Your task to perform on an android device: Go to sound settings Image 0: 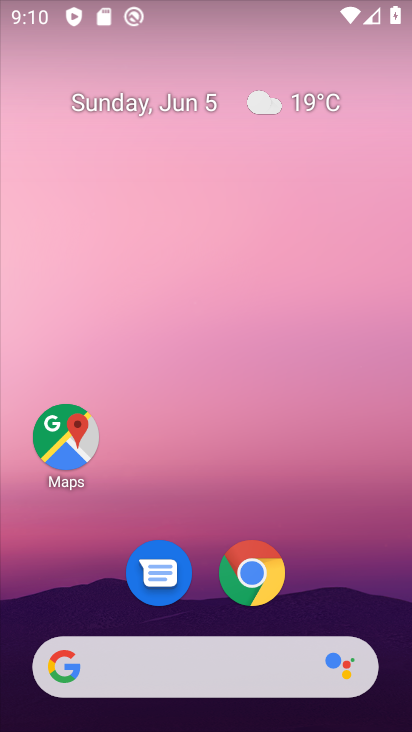
Step 0: drag from (223, 726) to (225, 115)
Your task to perform on an android device: Go to sound settings Image 1: 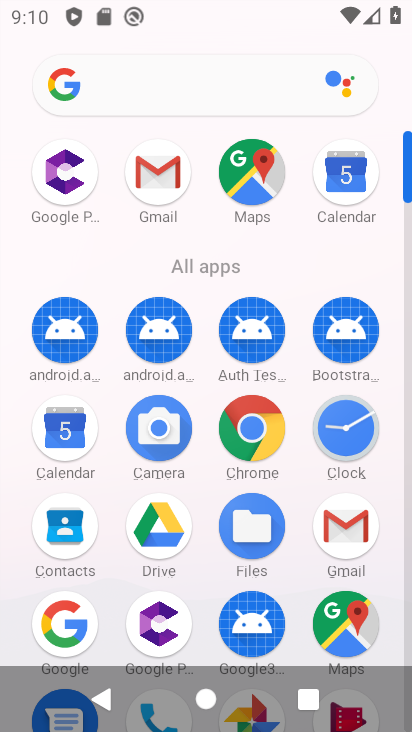
Step 1: drag from (199, 604) to (204, 204)
Your task to perform on an android device: Go to sound settings Image 2: 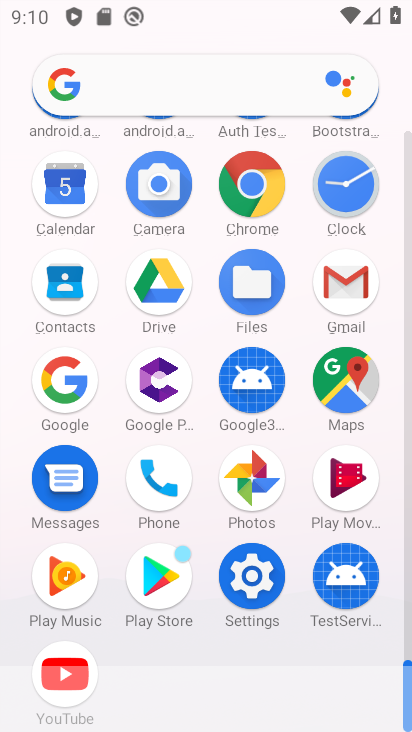
Step 2: click (258, 572)
Your task to perform on an android device: Go to sound settings Image 3: 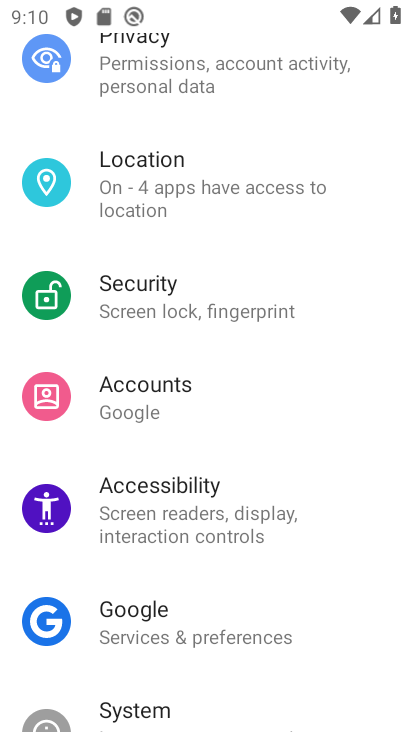
Step 3: drag from (324, 140) to (353, 464)
Your task to perform on an android device: Go to sound settings Image 4: 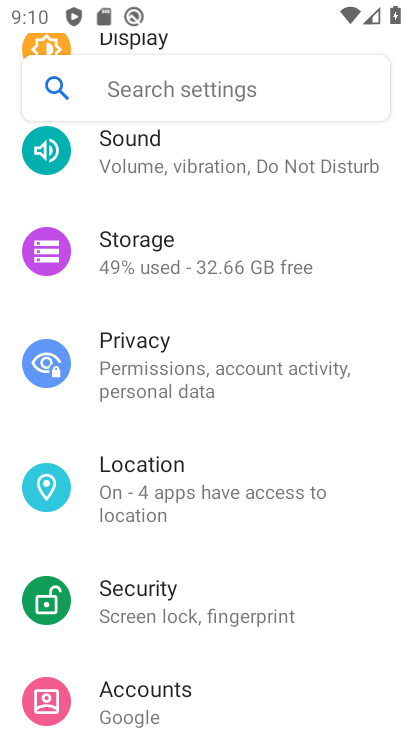
Step 4: click (169, 162)
Your task to perform on an android device: Go to sound settings Image 5: 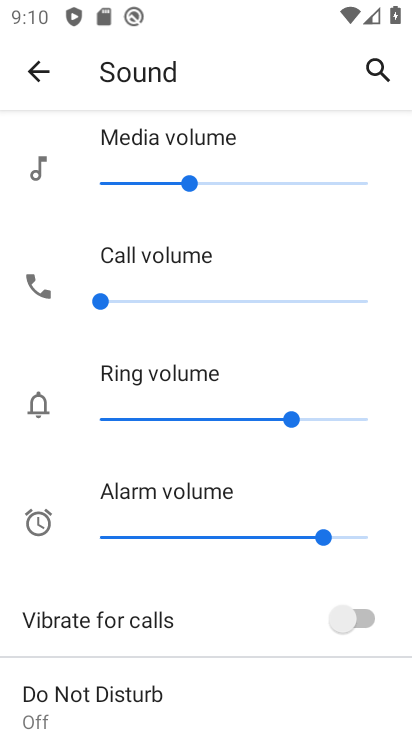
Step 5: task complete